Your task to perform on an android device: open a bookmark in the chrome app Image 0: 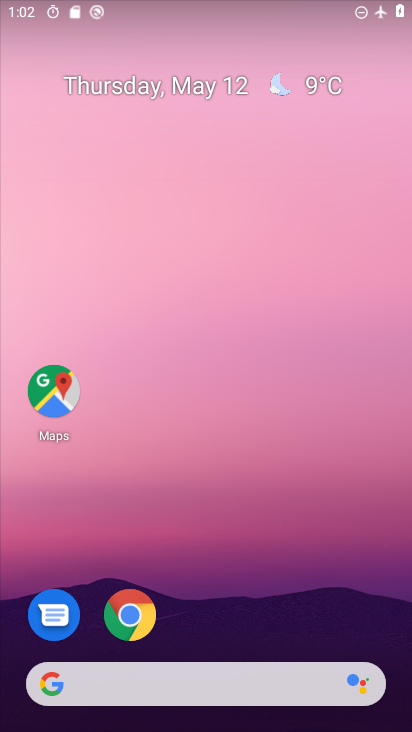
Step 0: click (132, 614)
Your task to perform on an android device: open a bookmark in the chrome app Image 1: 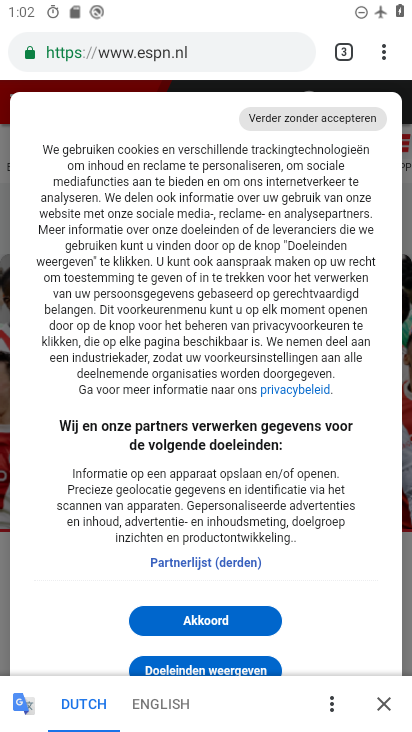
Step 1: drag from (392, 55) to (256, 201)
Your task to perform on an android device: open a bookmark in the chrome app Image 2: 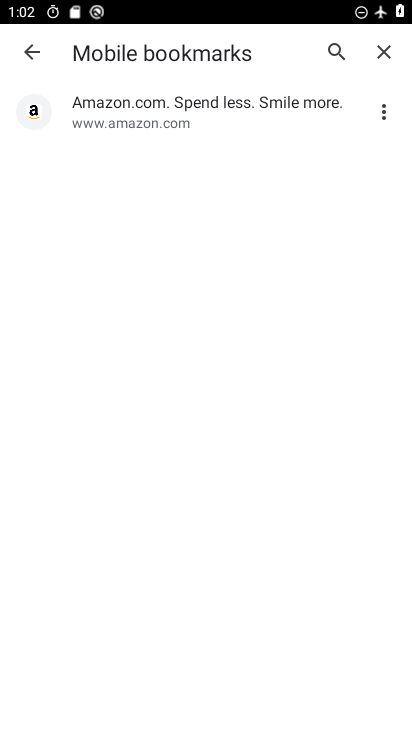
Step 2: click (248, 122)
Your task to perform on an android device: open a bookmark in the chrome app Image 3: 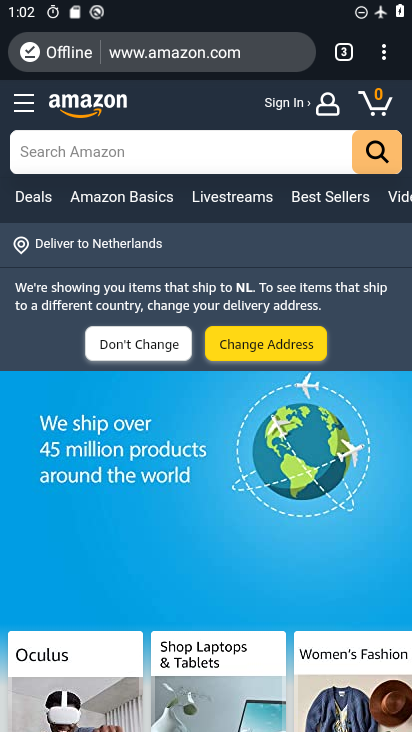
Step 3: task complete